Your task to perform on an android device: toggle notification dots Image 0: 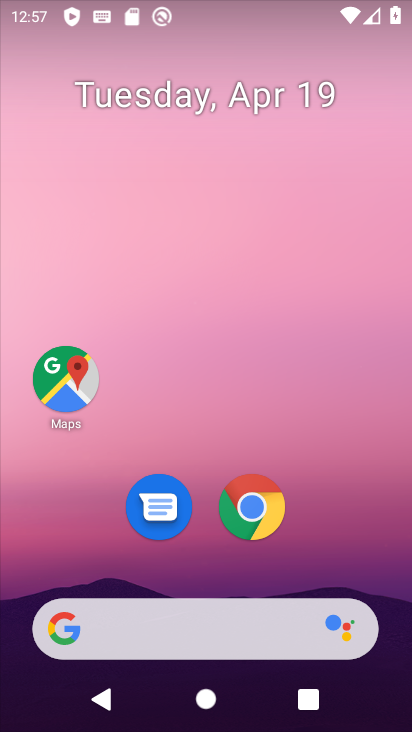
Step 0: drag from (215, 568) to (245, 78)
Your task to perform on an android device: toggle notification dots Image 1: 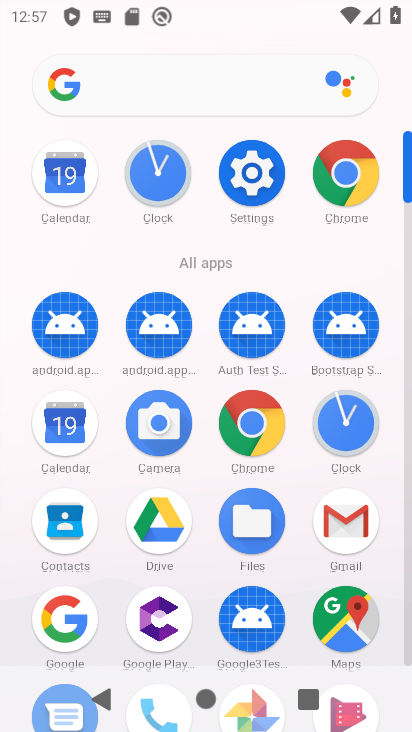
Step 1: click (252, 166)
Your task to perform on an android device: toggle notification dots Image 2: 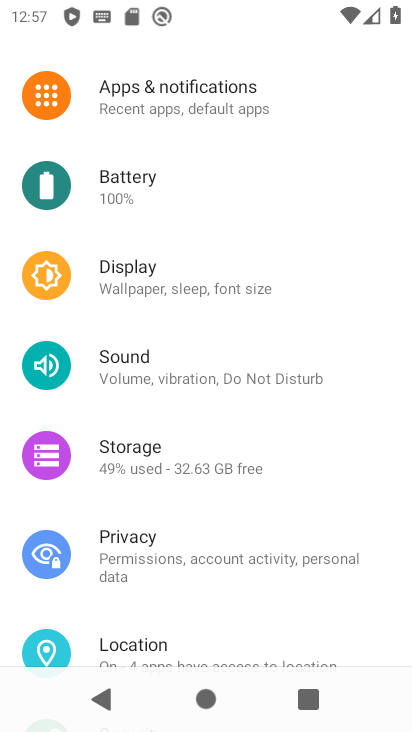
Step 2: click (198, 95)
Your task to perform on an android device: toggle notification dots Image 3: 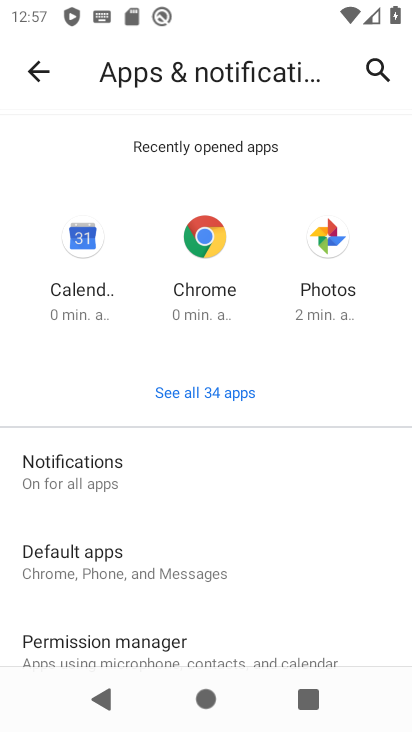
Step 3: click (134, 475)
Your task to perform on an android device: toggle notification dots Image 4: 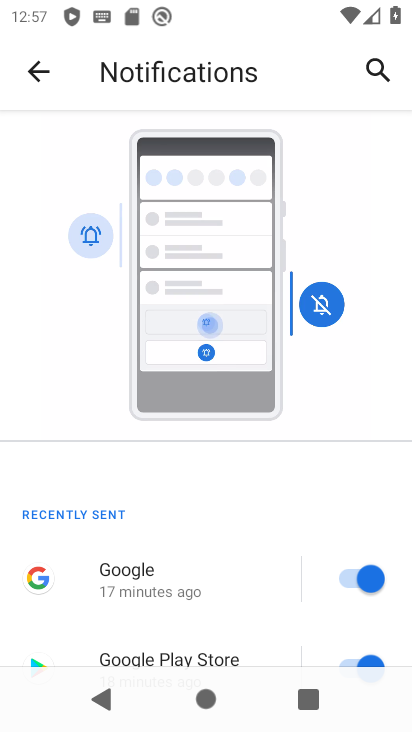
Step 4: drag from (217, 571) to (255, 147)
Your task to perform on an android device: toggle notification dots Image 5: 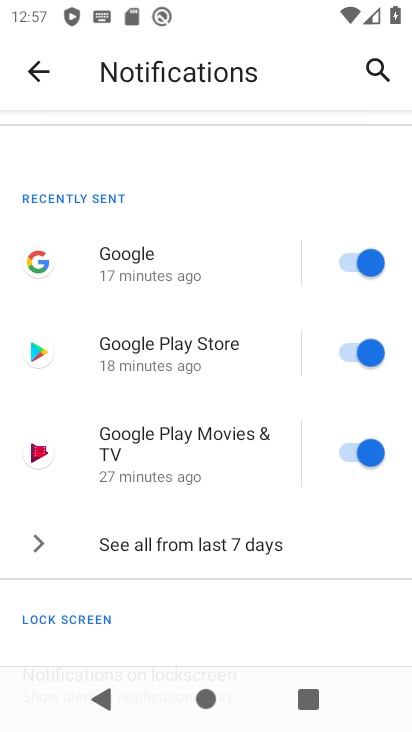
Step 5: drag from (219, 604) to (240, 154)
Your task to perform on an android device: toggle notification dots Image 6: 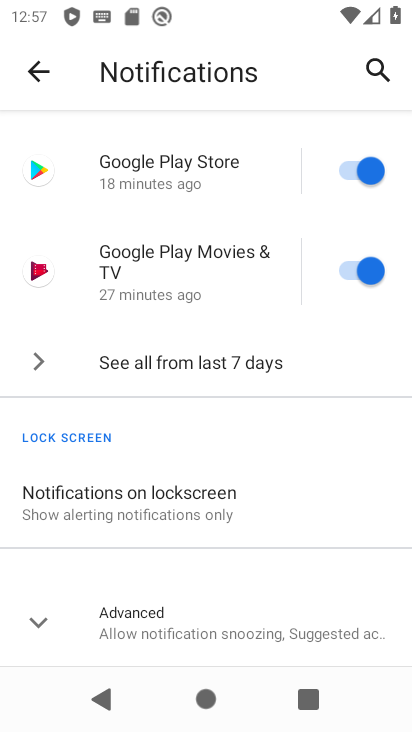
Step 6: click (240, 619)
Your task to perform on an android device: toggle notification dots Image 7: 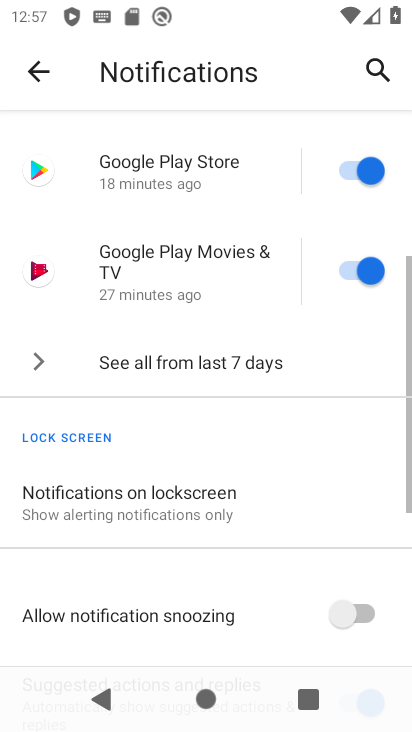
Step 7: drag from (236, 618) to (242, 104)
Your task to perform on an android device: toggle notification dots Image 8: 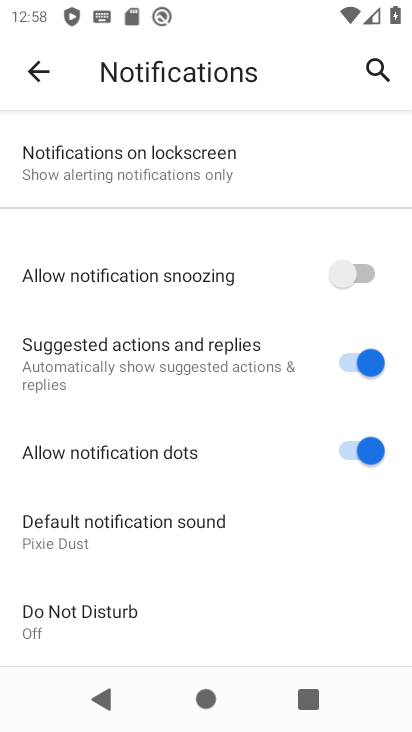
Step 8: click (352, 443)
Your task to perform on an android device: toggle notification dots Image 9: 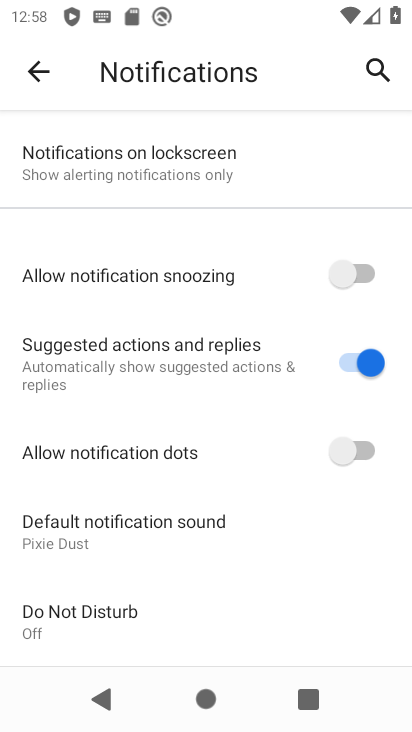
Step 9: task complete